Your task to perform on an android device: turn off smart reply in the gmail app Image 0: 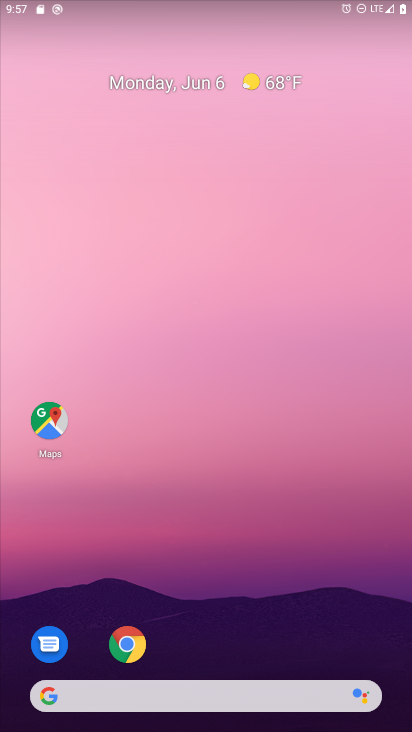
Step 0: press home button
Your task to perform on an android device: turn off smart reply in the gmail app Image 1: 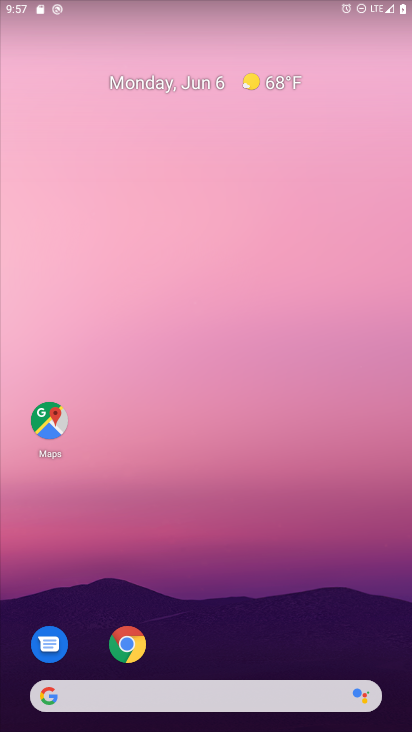
Step 1: drag from (234, 713) to (218, 88)
Your task to perform on an android device: turn off smart reply in the gmail app Image 2: 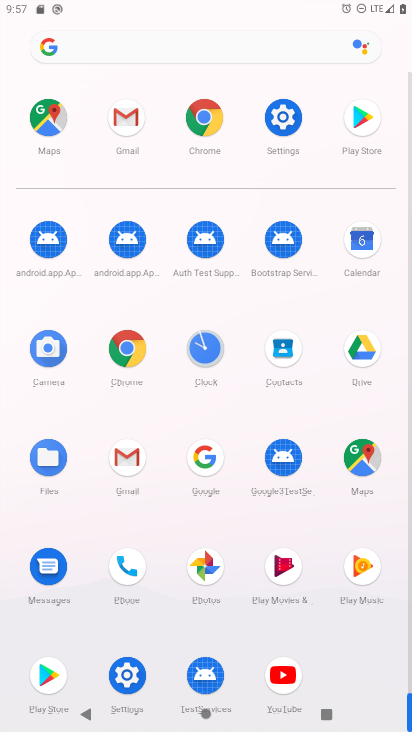
Step 2: click (129, 103)
Your task to perform on an android device: turn off smart reply in the gmail app Image 3: 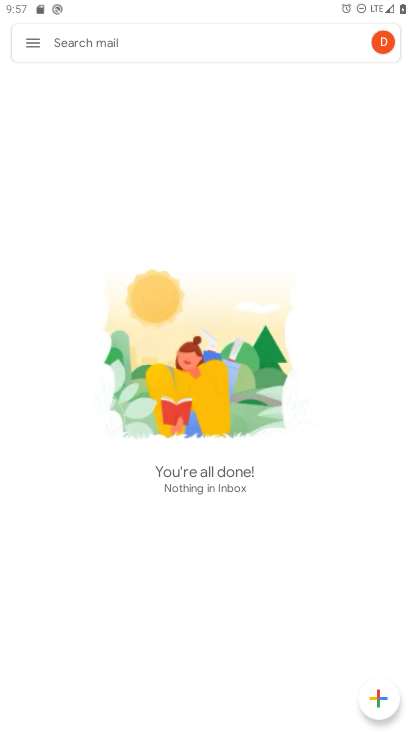
Step 3: click (34, 46)
Your task to perform on an android device: turn off smart reply in the gmail app Image 4: 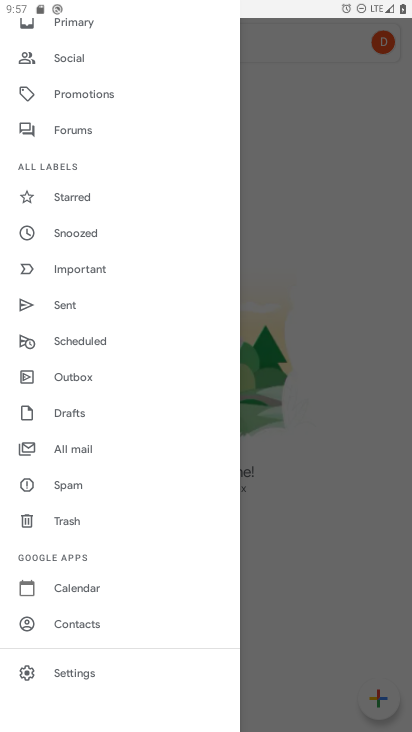
Step 4: click (89, 668)
Your task to perform on an android device: turn off smart reply in the gmail app Image 5: 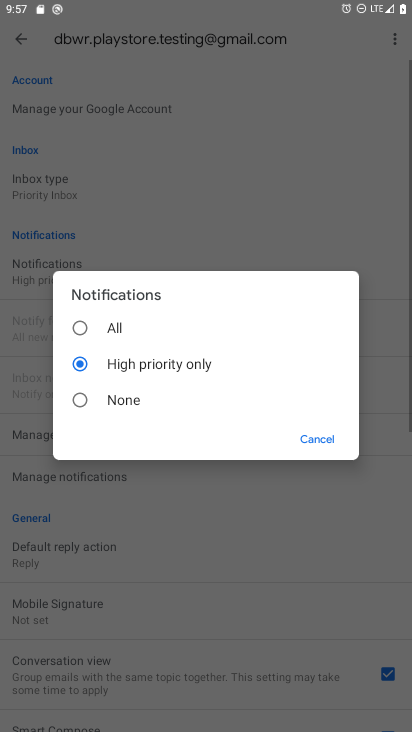
Step 5: click (323, 427)
Your task to perform on an android device: turn off smart reply in the gmail app Image 6: 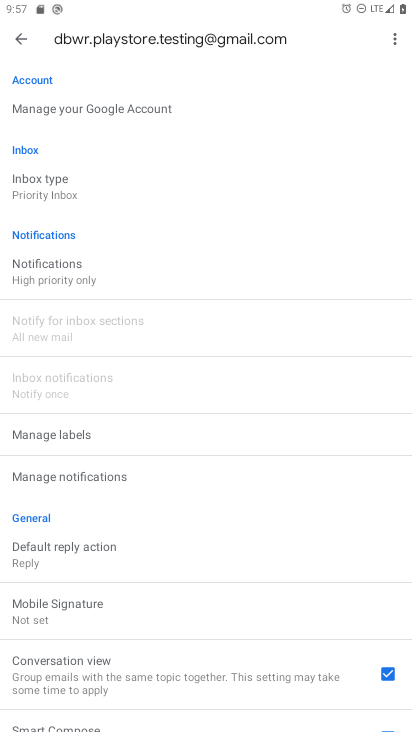
Step 6: drag from (269, 580) to (214, 173)
Your task to perform on an android device: turn off smart reply in the gmail app Image 7: 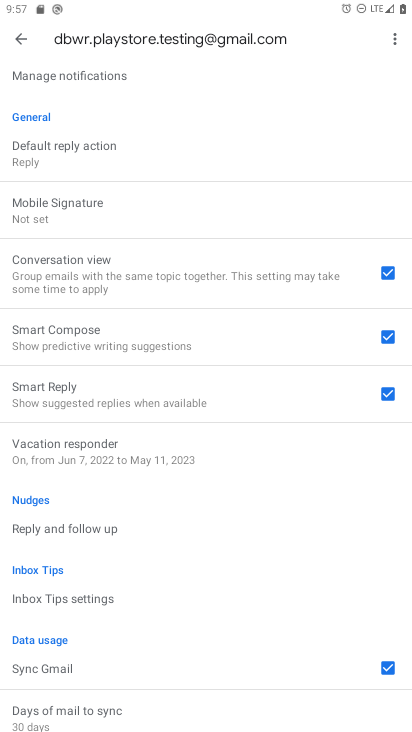
Step 7: click (401, 381)
Your task to perform on an android device: turn off smart reply in the gmail app Image 8: 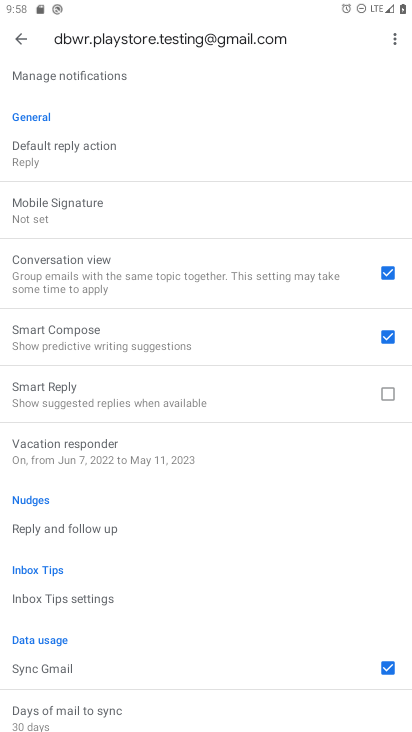
Step 8: task complete